Your task to perform on an android device: open app "Google Play Games" Image 0: 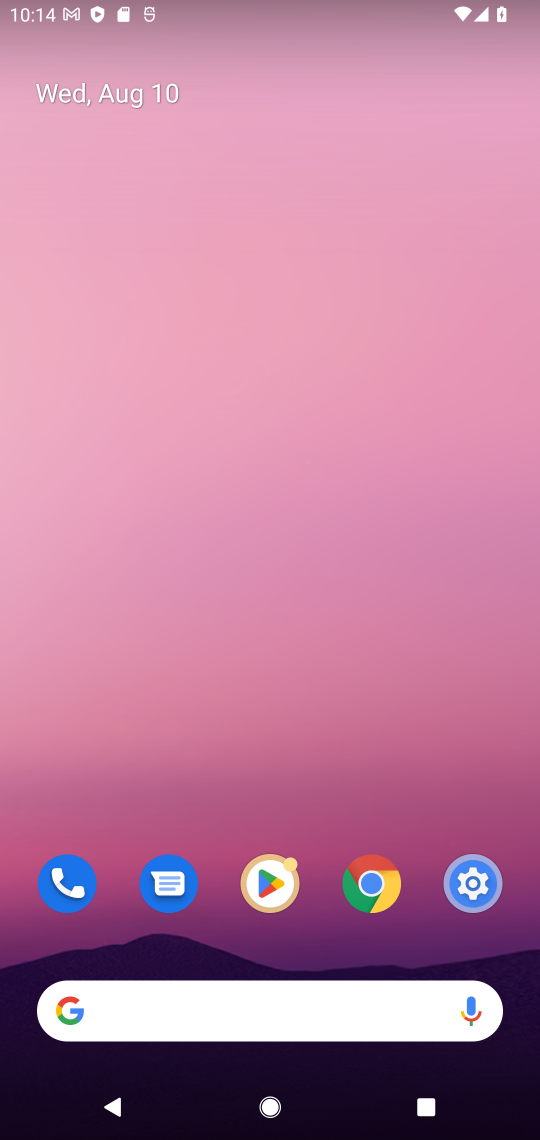
Step 0: drag from (332, 961) to (295, 145)
Your task to perform on an android device: open app "Google Play Games" Image 1: 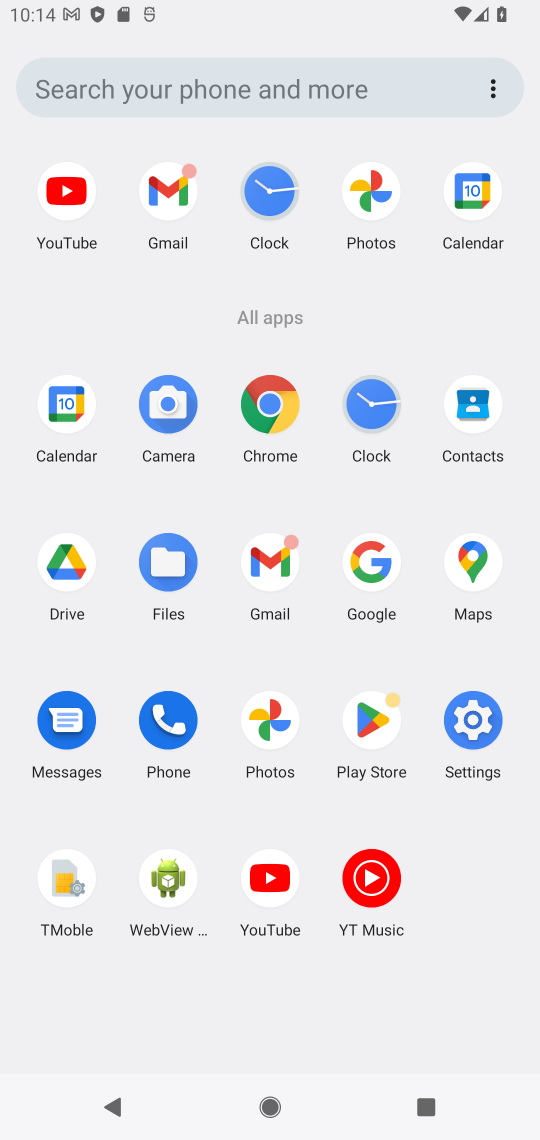
Step 1: click (373, 717)
Your task to perform on an android device: open app "Google Play Games" Image 2: 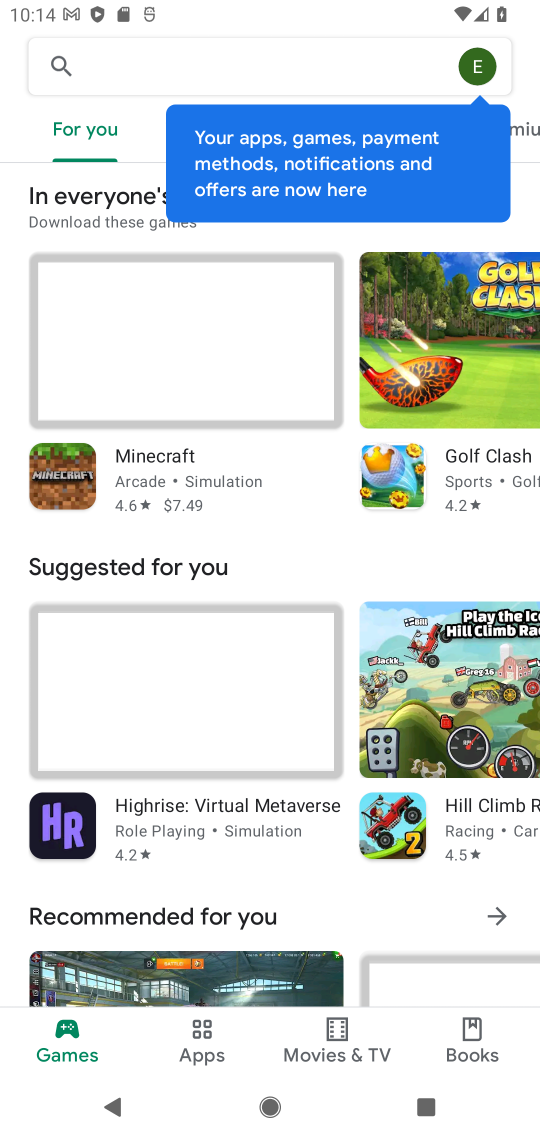
Step 2: click (326, 60)
Your task to perform on an android device: open app "Google Play Games" Image 3: 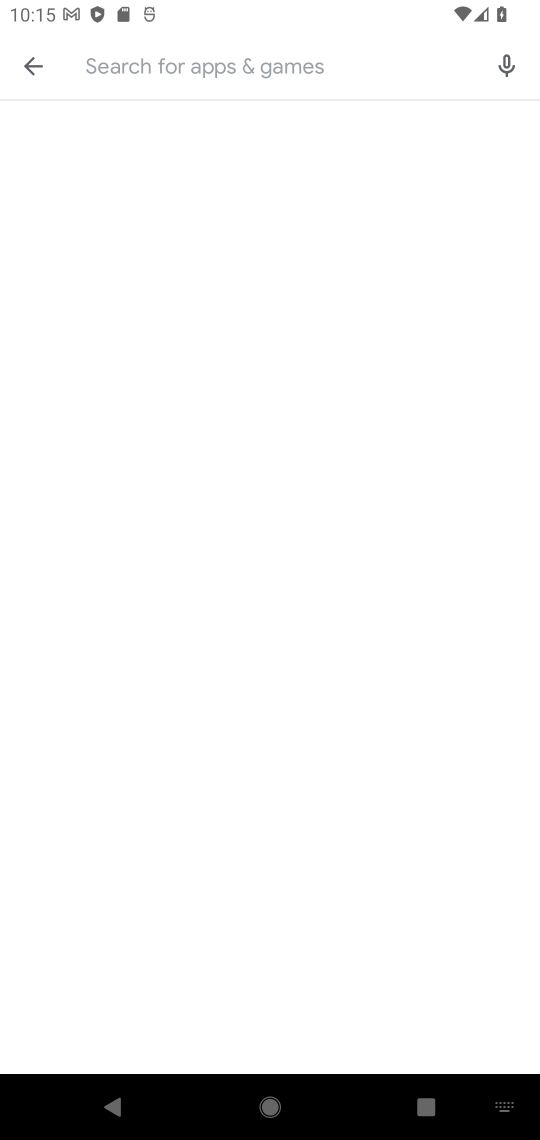
Step 3: type "Google Play Games"
Your task to perform on an android device: open app "Google Play Games" Image 4: 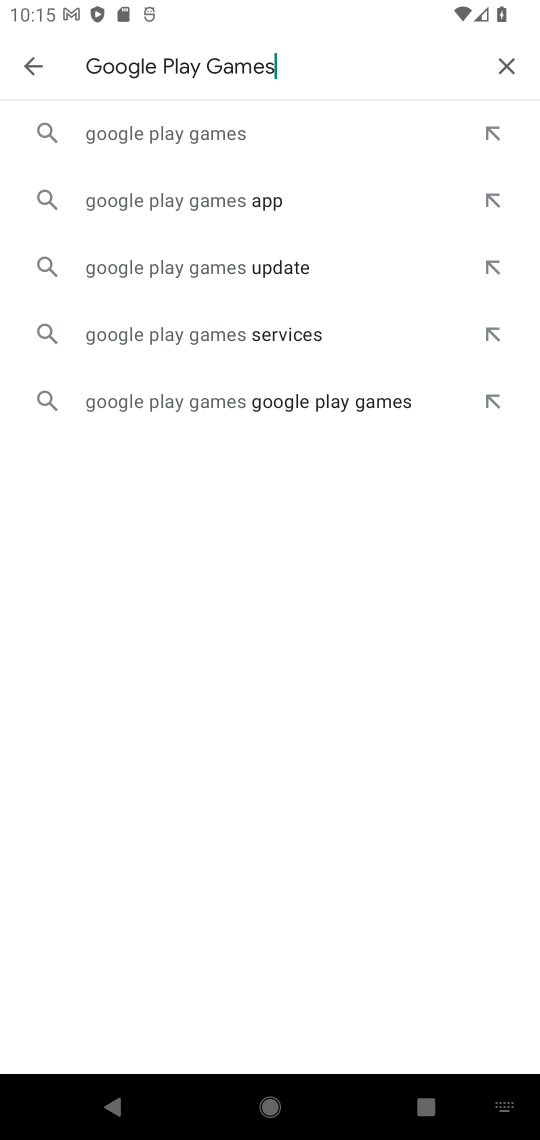
Step 4: click (193, 127)
Your task to perform on an android device: open app "Google Play Games" Image 5: 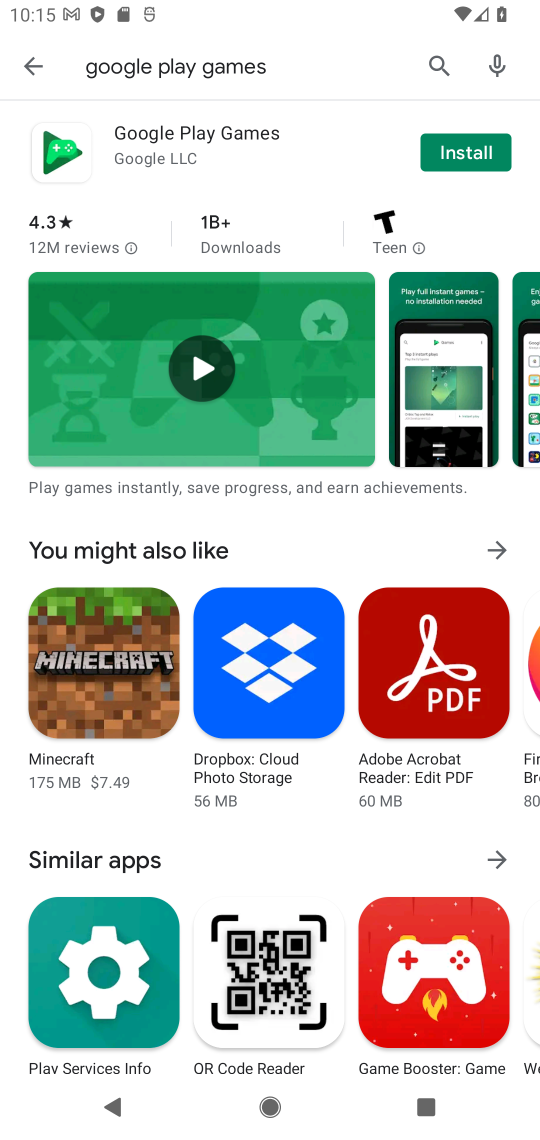
Step 5: task complete